Your task to perform on an android device: check out phone information Image 0: 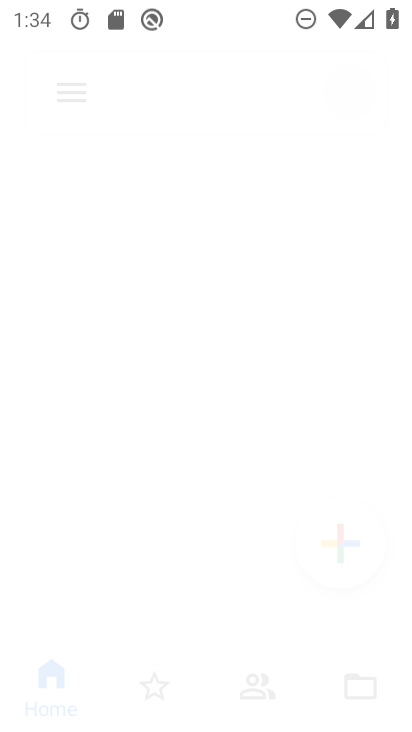
Step 0: drag from (361, 536) to (288, 150)
Your task to perform on an android device: check out phone information Image 1: 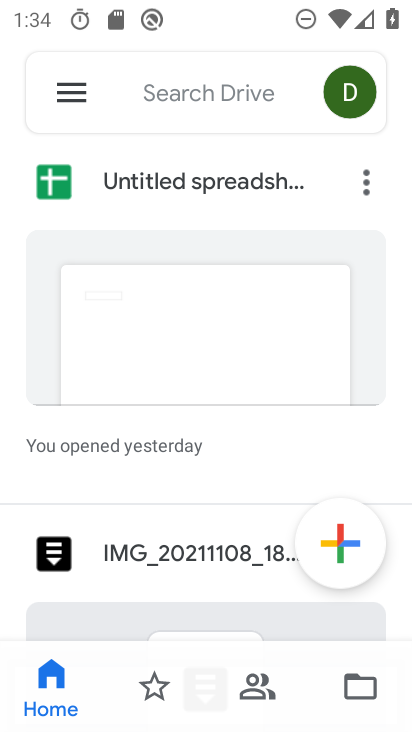
Step 1: press home button
Your task to perform on an android device: check out phone information Image 2: 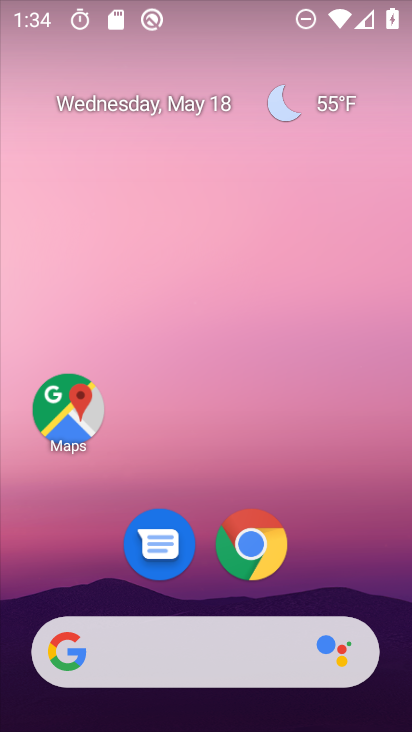
Step 2: drag from (338, 547) to (279, 124)
Your task to perform on an android device: check out phone information Image 3: 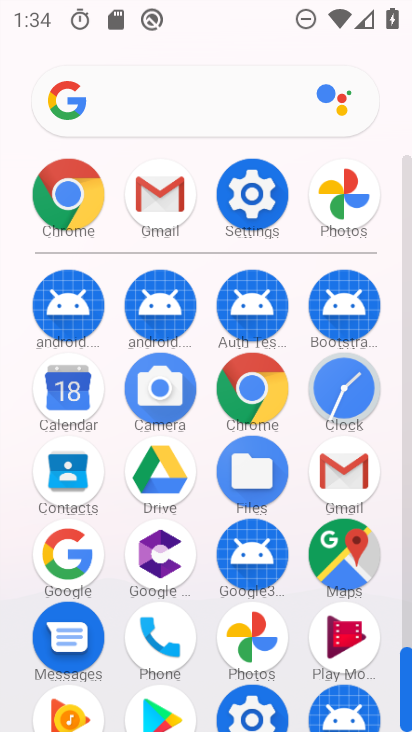
Step 3: click (261, 197)
Your task to perform on an android device: check out phone information Image 4: 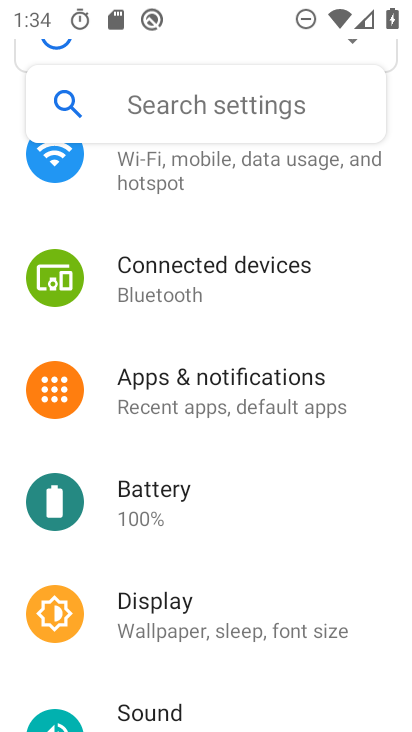
Step 4: drag from (283, 602) to (330, 166)
Your task to perform on an android device: check out phone information Image 5: 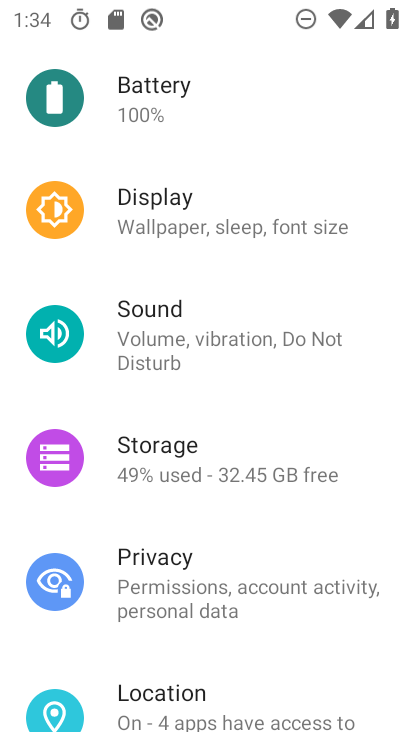
Step 5: drag from (300, 651) to (298, 231)
Your task to perform on an android device: check out phone information Image 6: 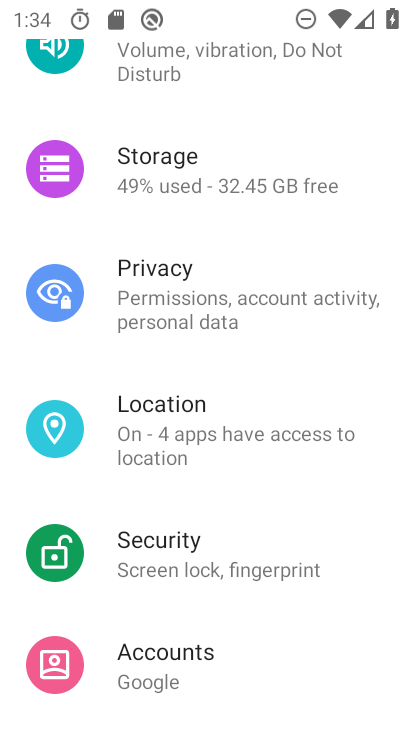
Step 6: drag from (251, 644) to (273, 223)
Your task to perform on an android device: check out phone information Image 7: 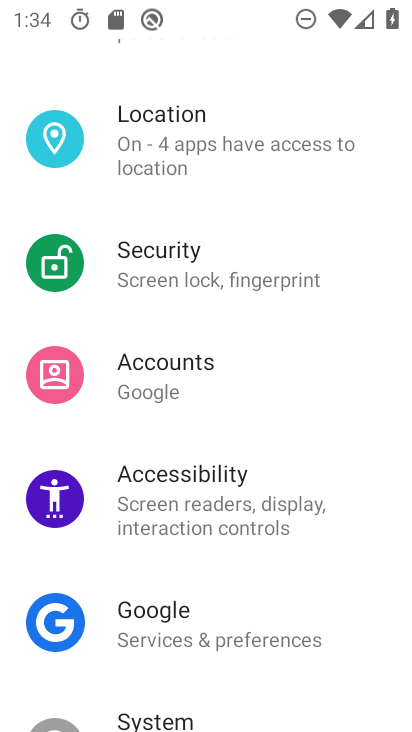
Step 7: drag from (300, 641) to (318, 185)
Your task to perform on an android device: check out phone information Image 8: 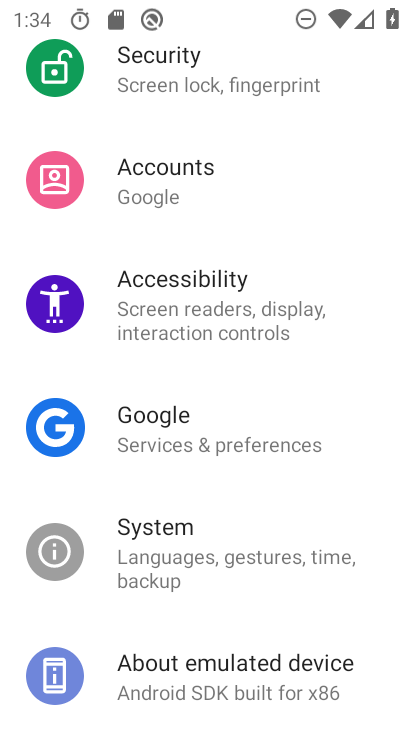
Step 8: click (265, 672)
Your task to perform on an android device: check out phone information Image 9: 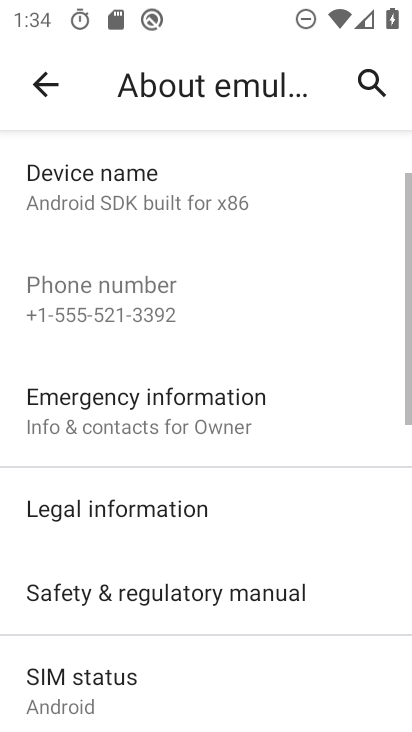
Step 9: drag from (265, 672) to (299, 330)
Your task to perform on an android device: check out phone information Image 10: 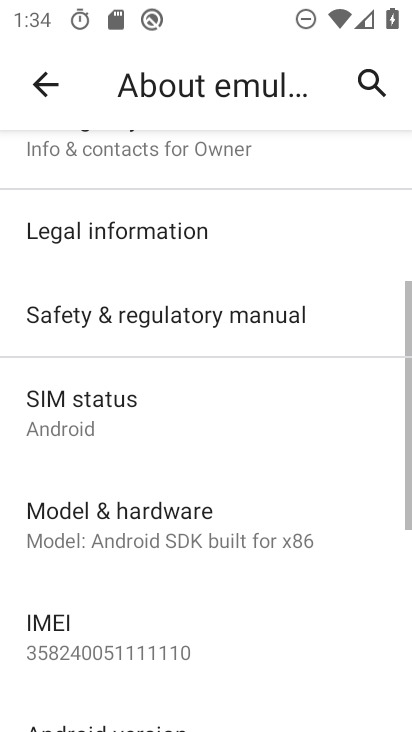
Step 10: click (226, 533)
Your task to perform on an android device: check out phone information Image 11: 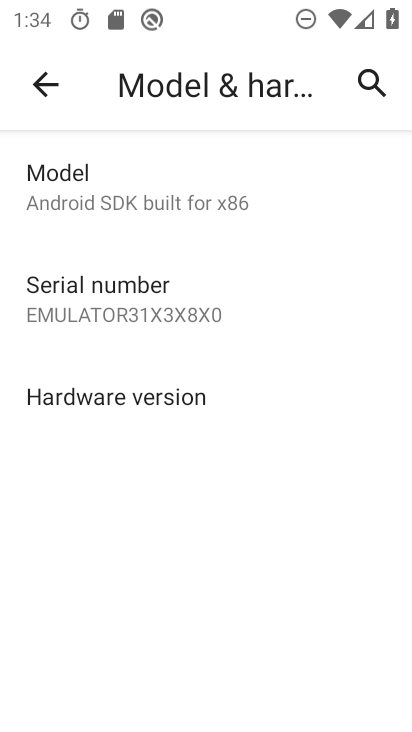
Step 11: task complete